Your task to perform on an android device: turn off data saver in the chrome app Image 0: 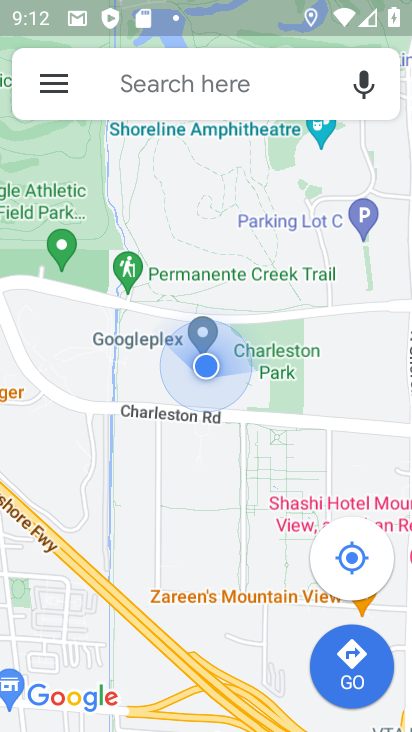
Step 0: press home button
Your task to perform on an android device: turn off data saver in the chrome app Image 1: 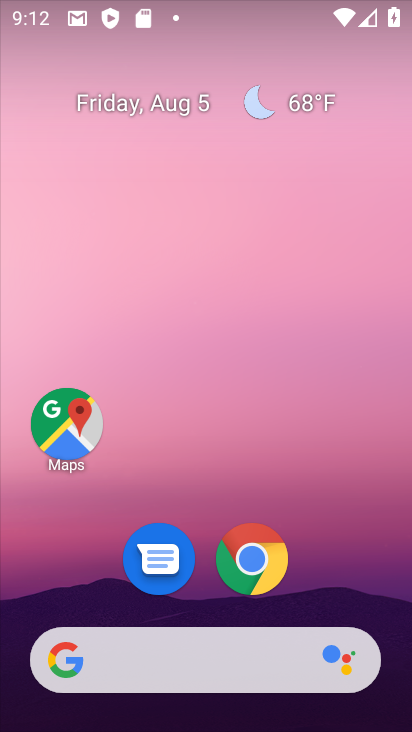
Step 1: click (274, 552)
Your task to perform on an android device: turn off data saver in the chrome app Image 2: 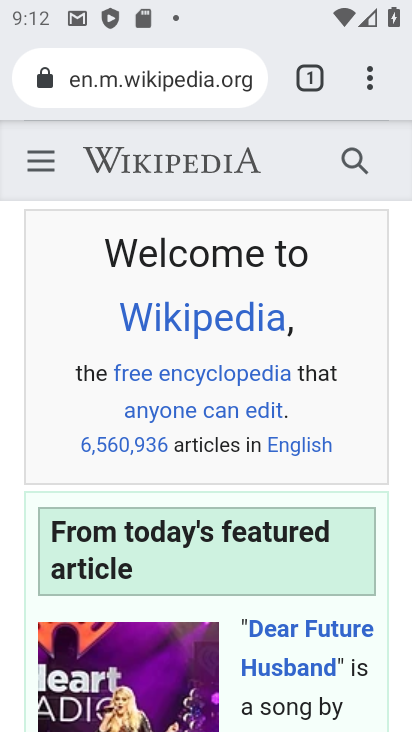
Step 2: click (367, 89)
Your task to perform on an android device: turn off data saver in the chrome app Image 3: 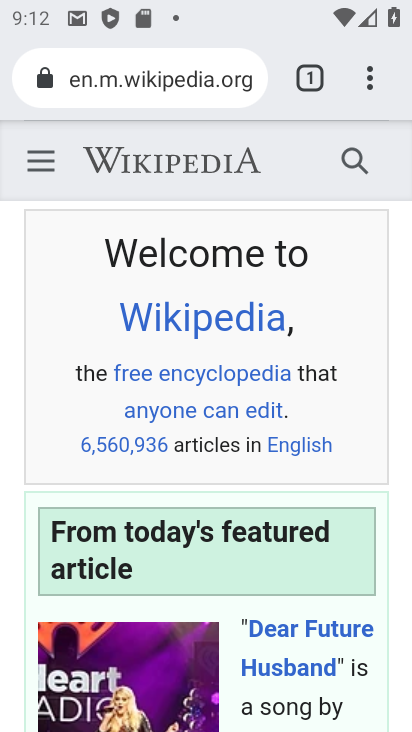
Step 3: click (368, 82)
Your task to perform on an android device: turn off data saver in the chrome app Image 4: 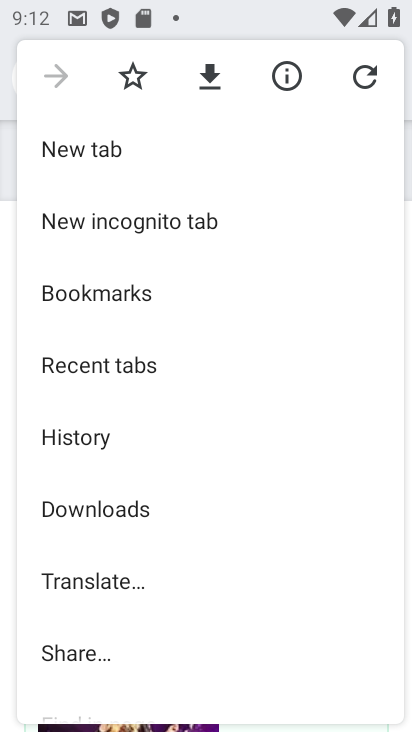
Step 4: drag from (158, 561) to (218, 179)
Your task to perform on an android device: turn off data saver in the chrome app Image 5: 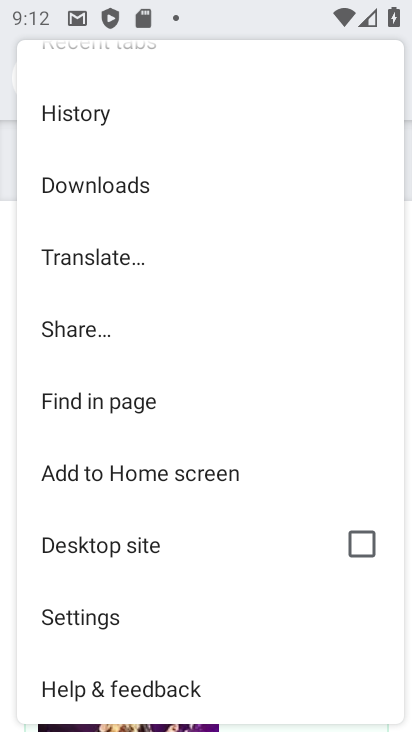
Step 5: click (100, 610)
Your task to perform on an android device: turn off data saver in the chrome app Image 6: 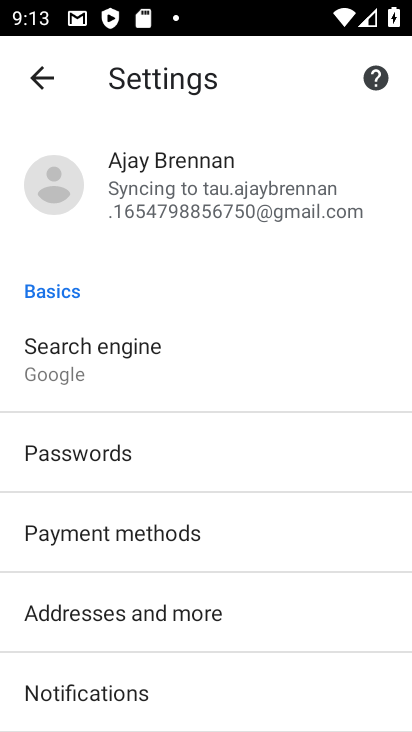
Step 6: drag from (187, 647) to (303, 188)
Your task to perform on an android device: turn off data saver in the chrome app Image 7: 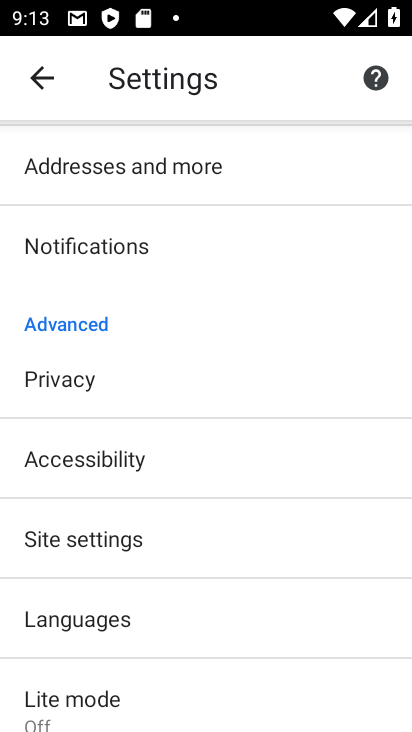
Step 7: drag from (150, 615) to (192, 341)
Your task to perform on an android device: turn off data saver in the chrome app Image 8: 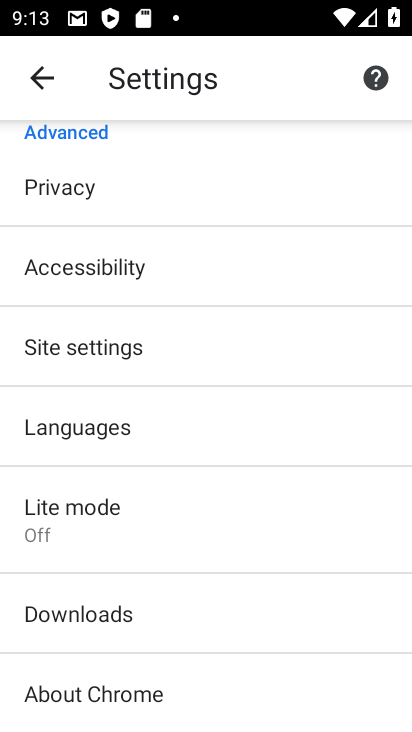
Step 8: click (133, 534)
Your task to perform on an android device: turn off data saver in the chrome app Image 9: 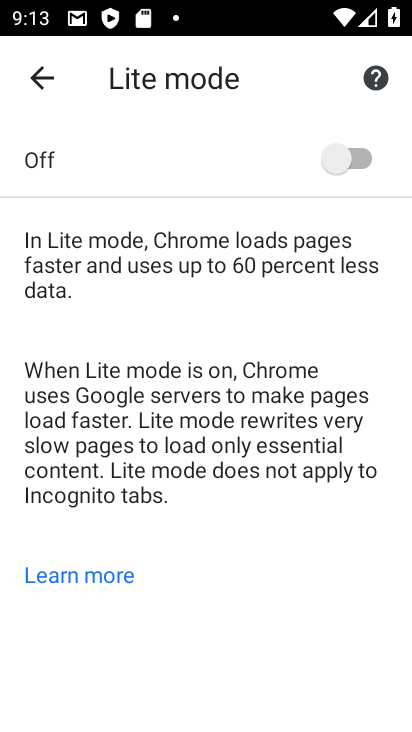
Step 9: task complete